Your task to perform on an android device: Go to internet settings Image 0: 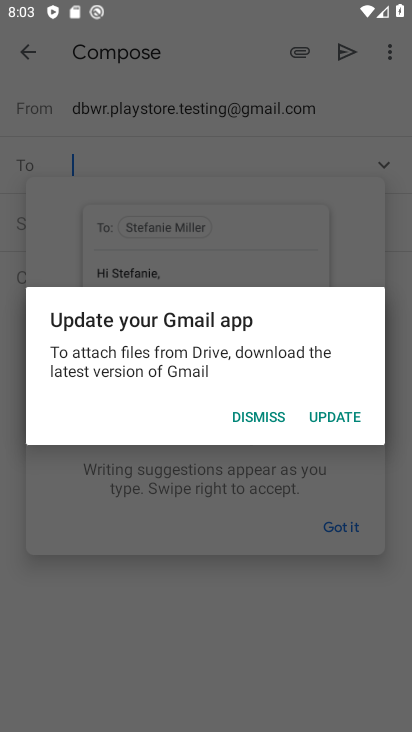
Step 0: press home button
Your task to perform on an android device: Go to internet settings Image 1: 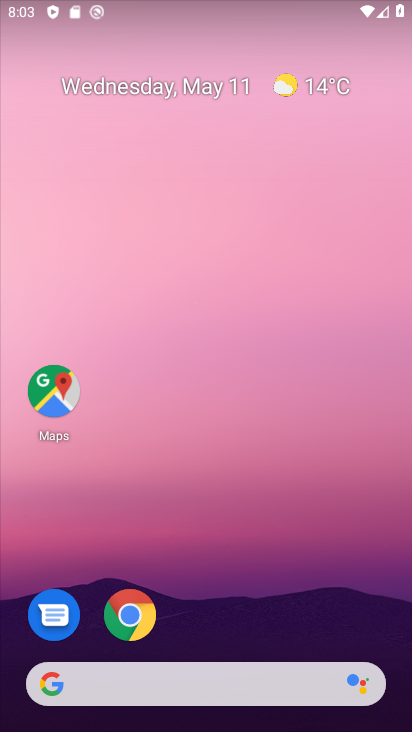
Step 1: drag from (177, 635) to (195, 276)
Your task to perform on an android device: Go to internet settings Image 2: 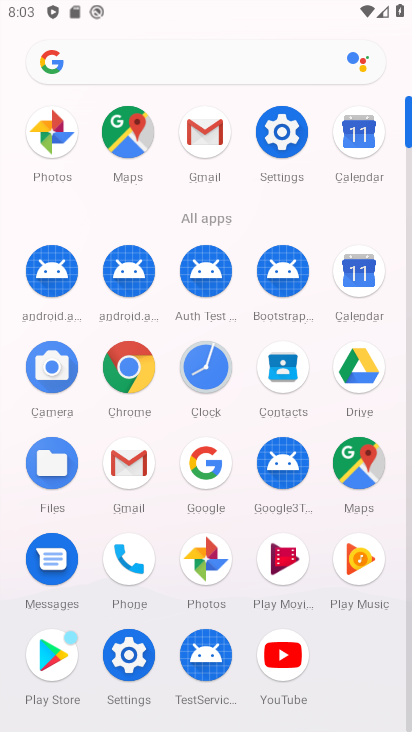
Step 2: click (294, 131)
Your task to perform on an android device: Go to internet settings Image 3: 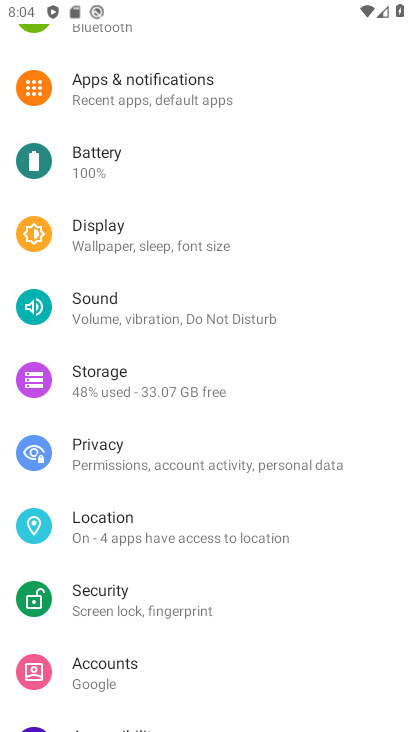
Step 3: drag from (286, 129) to (252, 549)
Your task to perform on an android device: Go to internet settings Image 4: 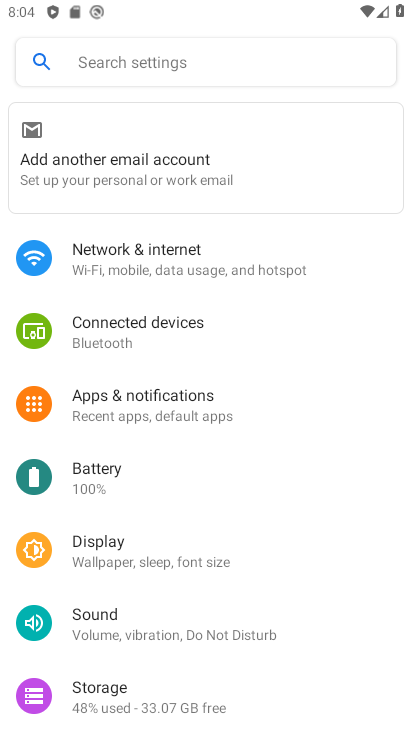
Step 4: click (208, 270)
Your task to perform on an android device: Go to internet settings Image 5: 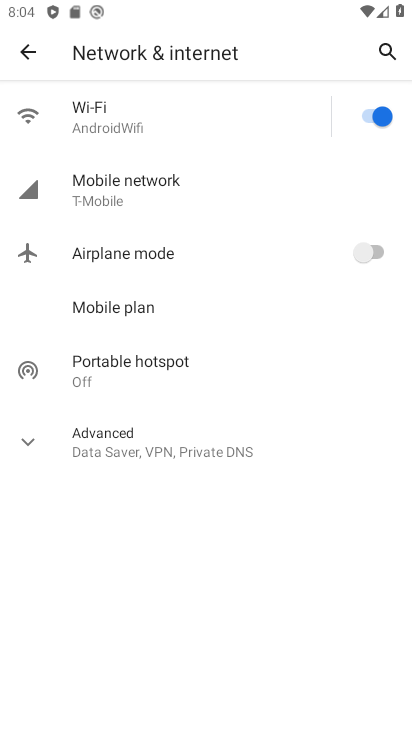
Step 5: task complete